Your task to perform on an android device: set default search engine in the chrome app Image 0: 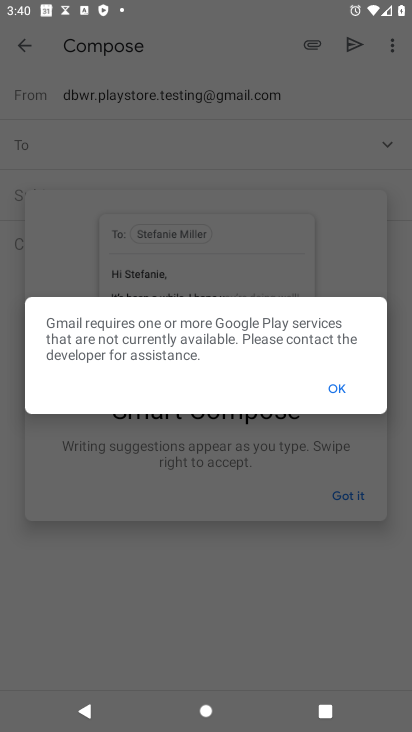
Step 0: press home button
Your task to perform on an android device: set default search engine in the chrome app Image 1: 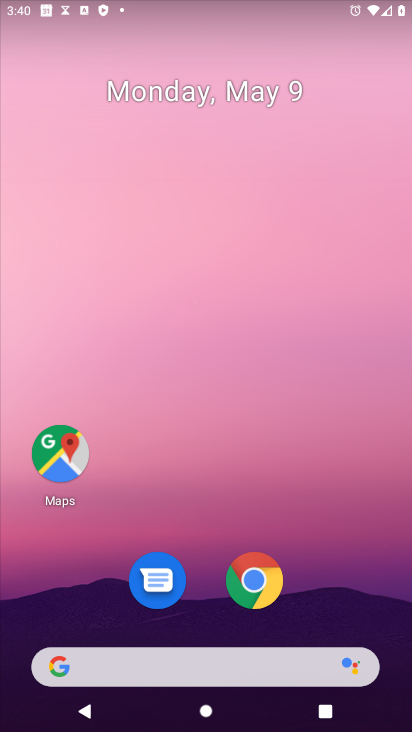
Step 1: click (259, 579)
Your task to perform on an android device: set default search engine in the chrome app Image 2: 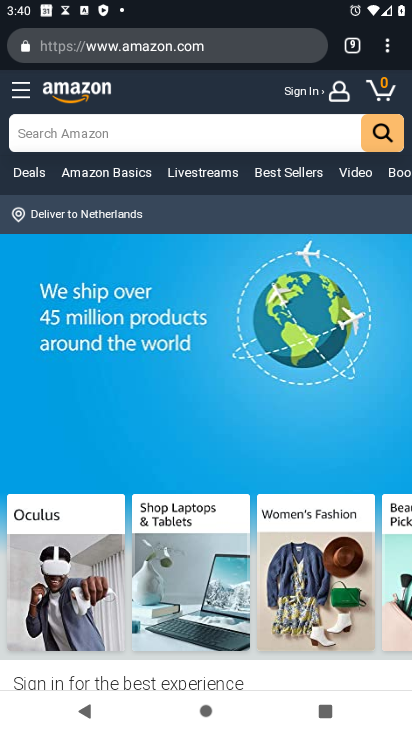
Step 2: click (385, 45)
Your task to perform on an android device: set default search engine in the chrome app Image 3: 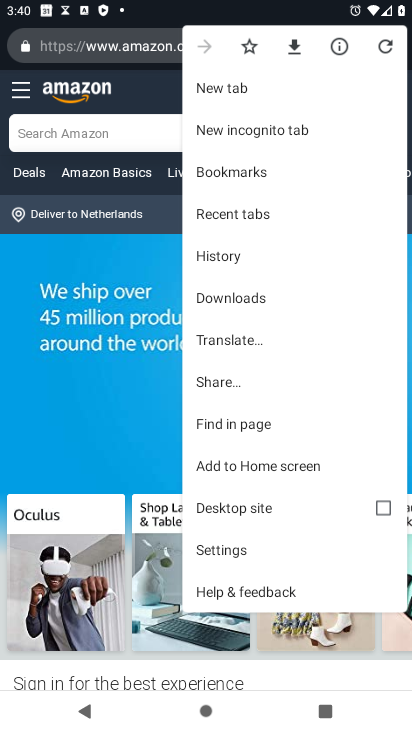
Step 3: click (220, 531)
Your task to perform on an android device: set default search engine in the chrome app Image 4: 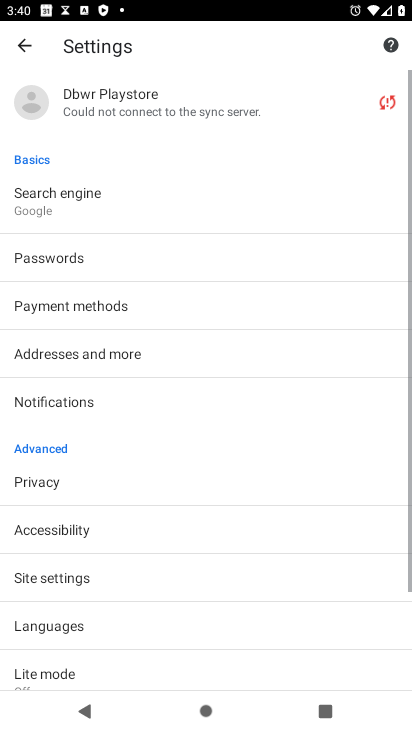
Step 4: click (101, 197)
Your task to perform on an android device: set default search engine in the chrome app Image 5: 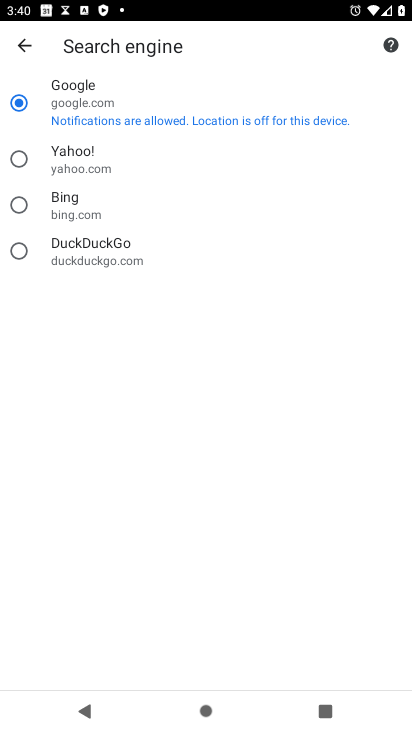
Step 5: click (162, 95)
Your task to perform on an android device: set default search engine in the chrome app Image 6: 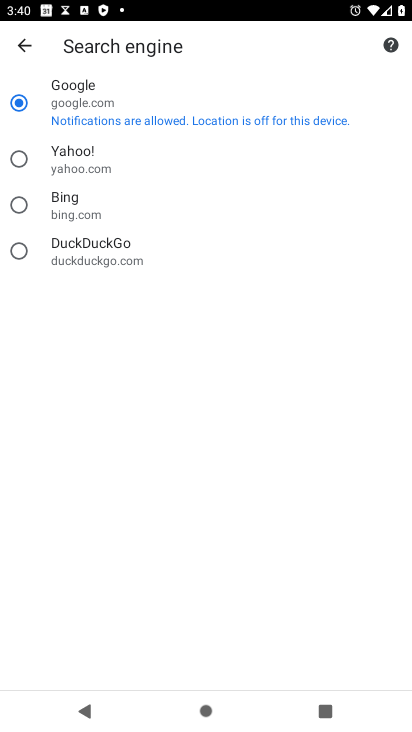
Step 6: task complete